Your task to perform on an android device: add a label to a message in the gmail app Image 0: 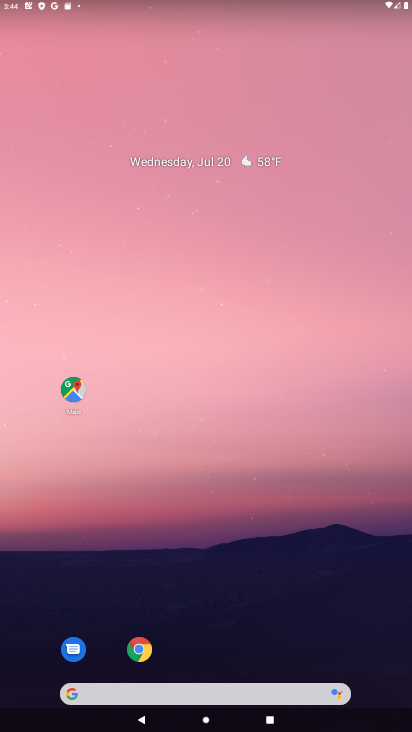
Step 0: drag from (227, 671) to (227, 347)
Your task to perform on an android device: add a label to a message in the gmail app Image 1: 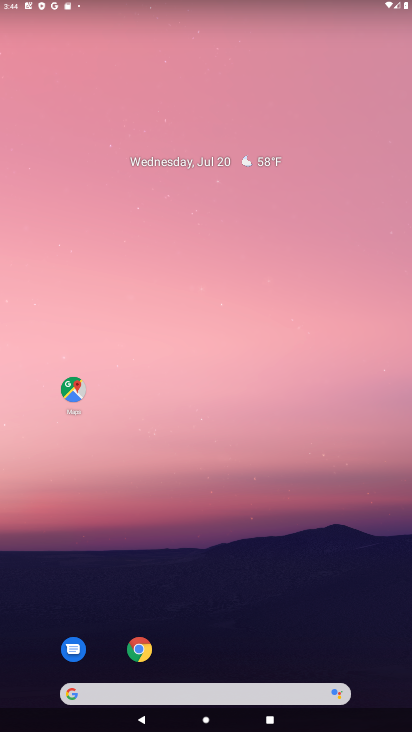
Step 1: drag from (225, 717) to (227, 94)
Your task to perform on an android device: add a label to a message in the gmail app Image 2: 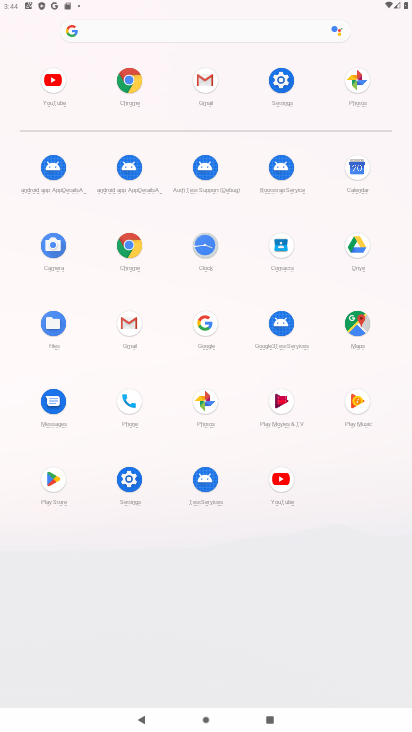
Step 2: click (128, 313)
Your task to perform on an android device: add a label to a message in the gmail app Image 3: 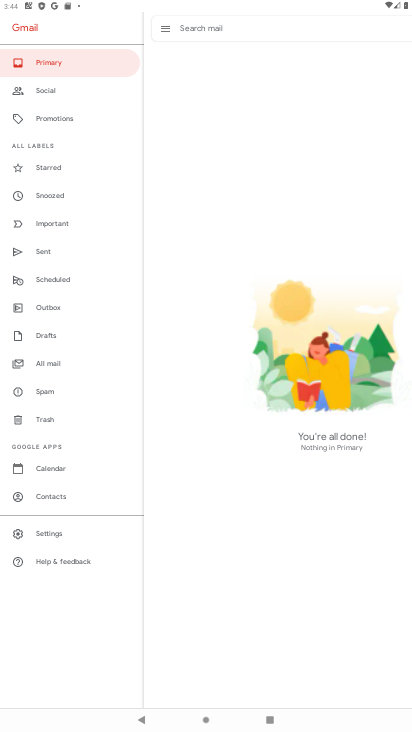
Step 3: task complete